Your task to perform on an android device: Who is the president of the United States? Image 0: 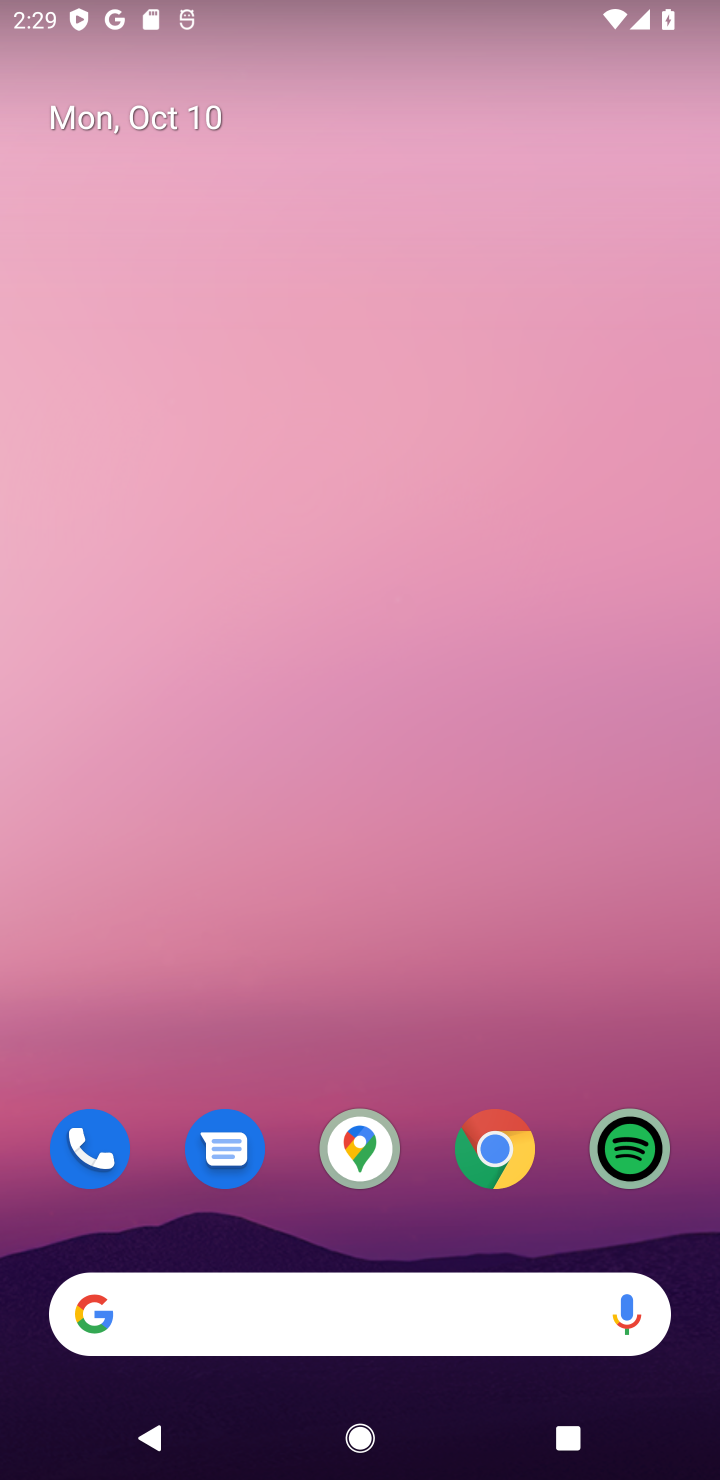
Step 0: drag from (398, 1237) to (371, 21)
Your task to perform on an android device: Who is the president of the United States? Image 1: 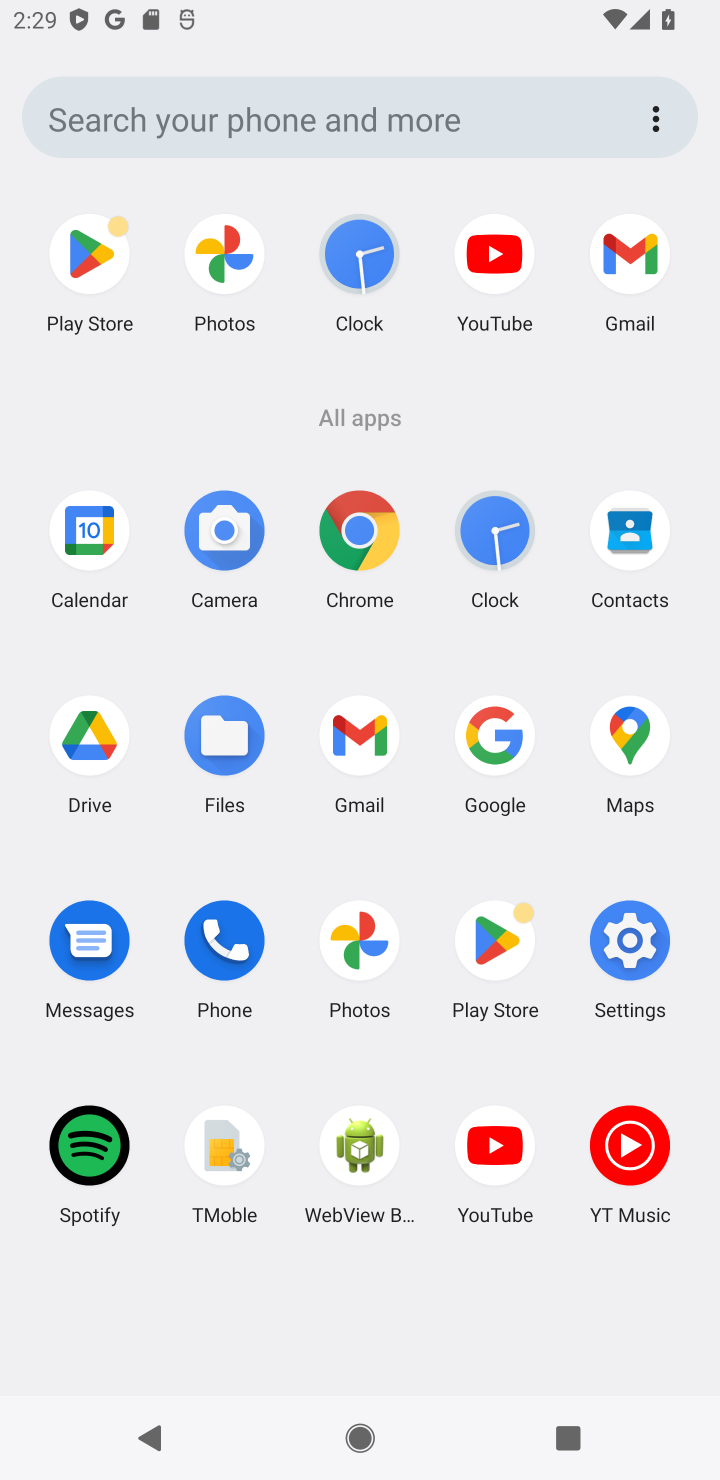
Step 1: press home button
Your task to perform on an android device: Who is the president of the United States? Image 2: 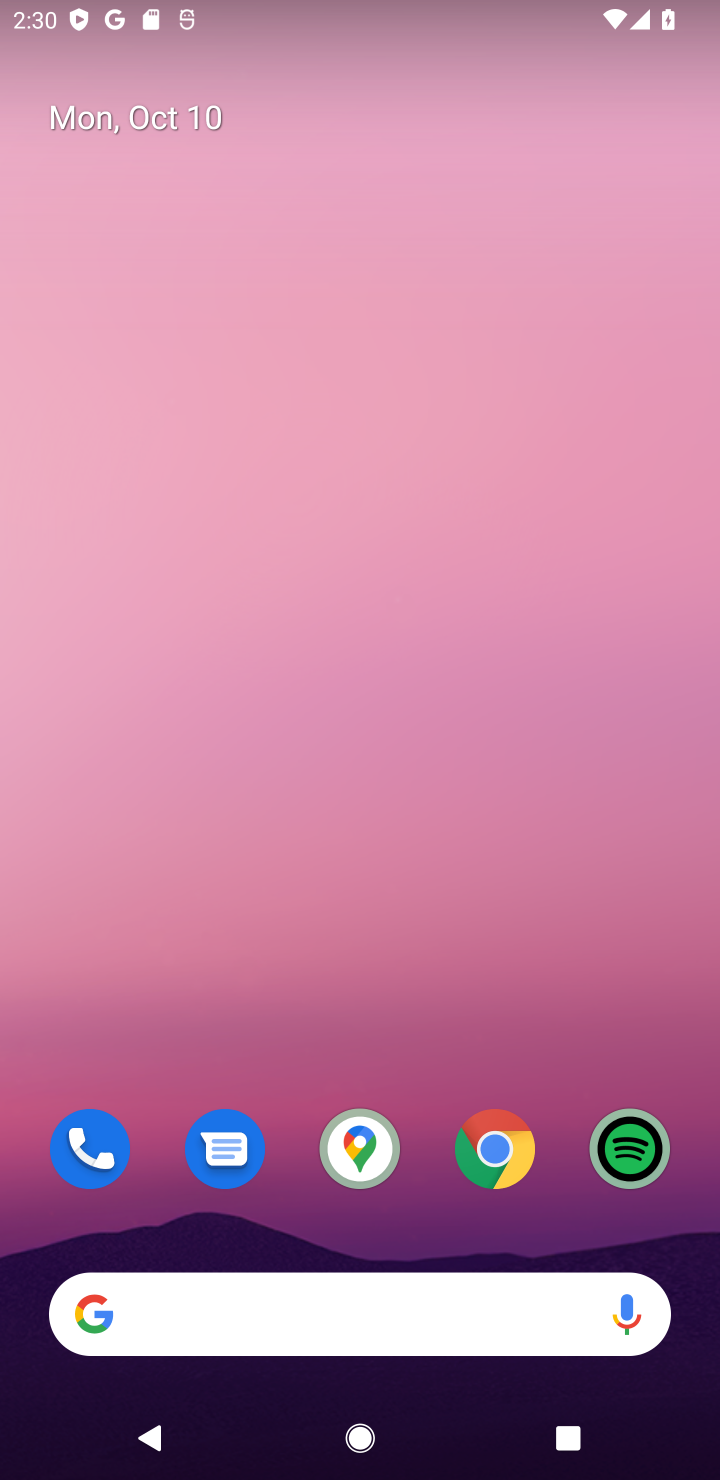
Step 2: click (360, 1294)
Your task to perform on an android device: Who is the president of the United States? Image 3: 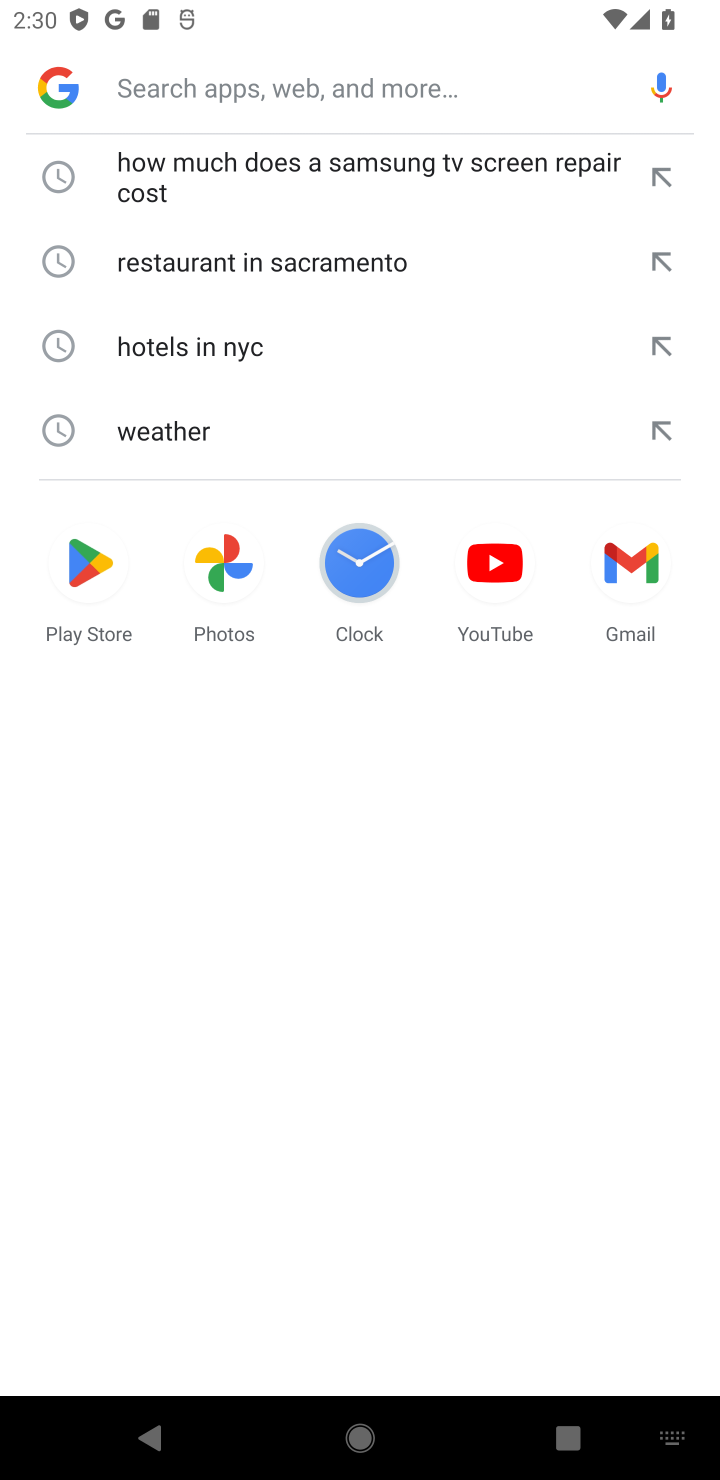
Step 3: type "Who is the president of the United States?"
Your task to perform on an android device: Who is the president of the United States? Image 4: 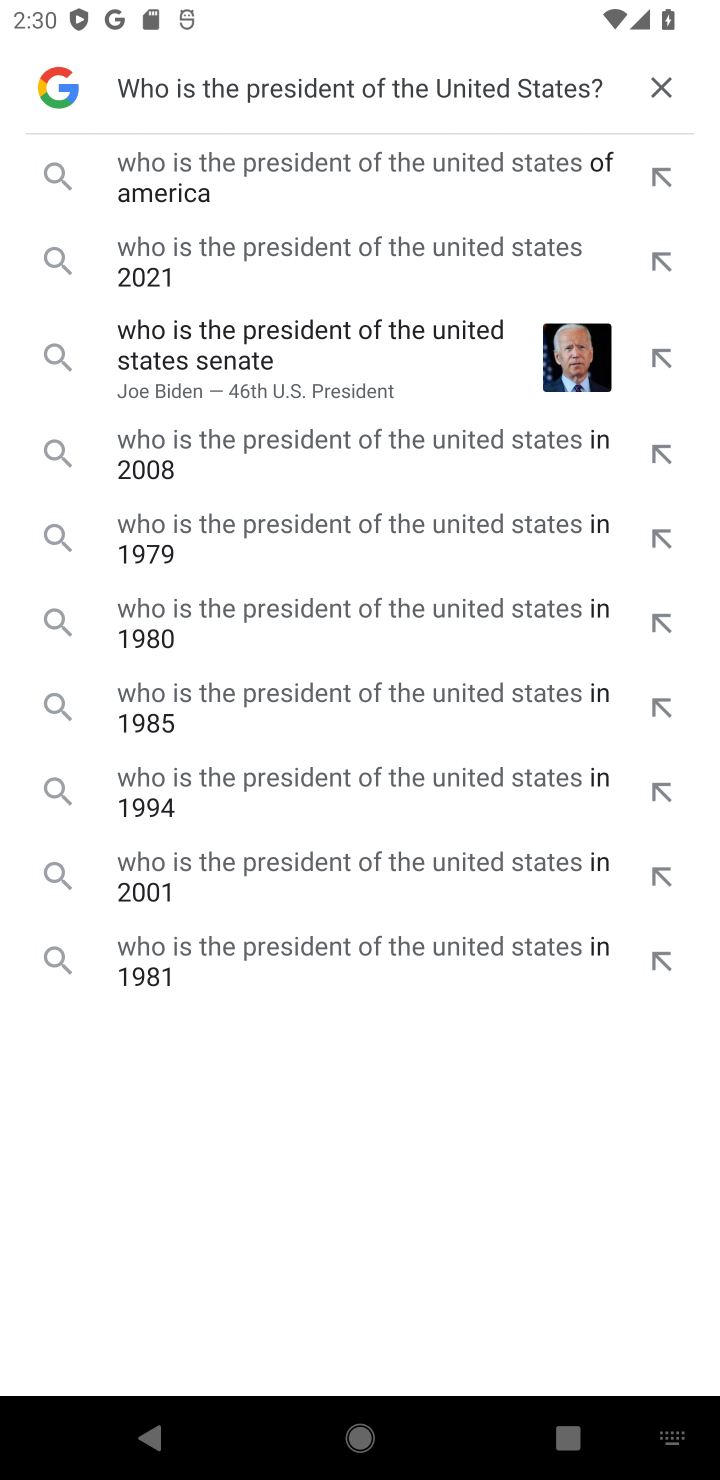
Step 4: click (381, 178)
Your task to perform on an android device: Who is the president of the United States? Image 5: 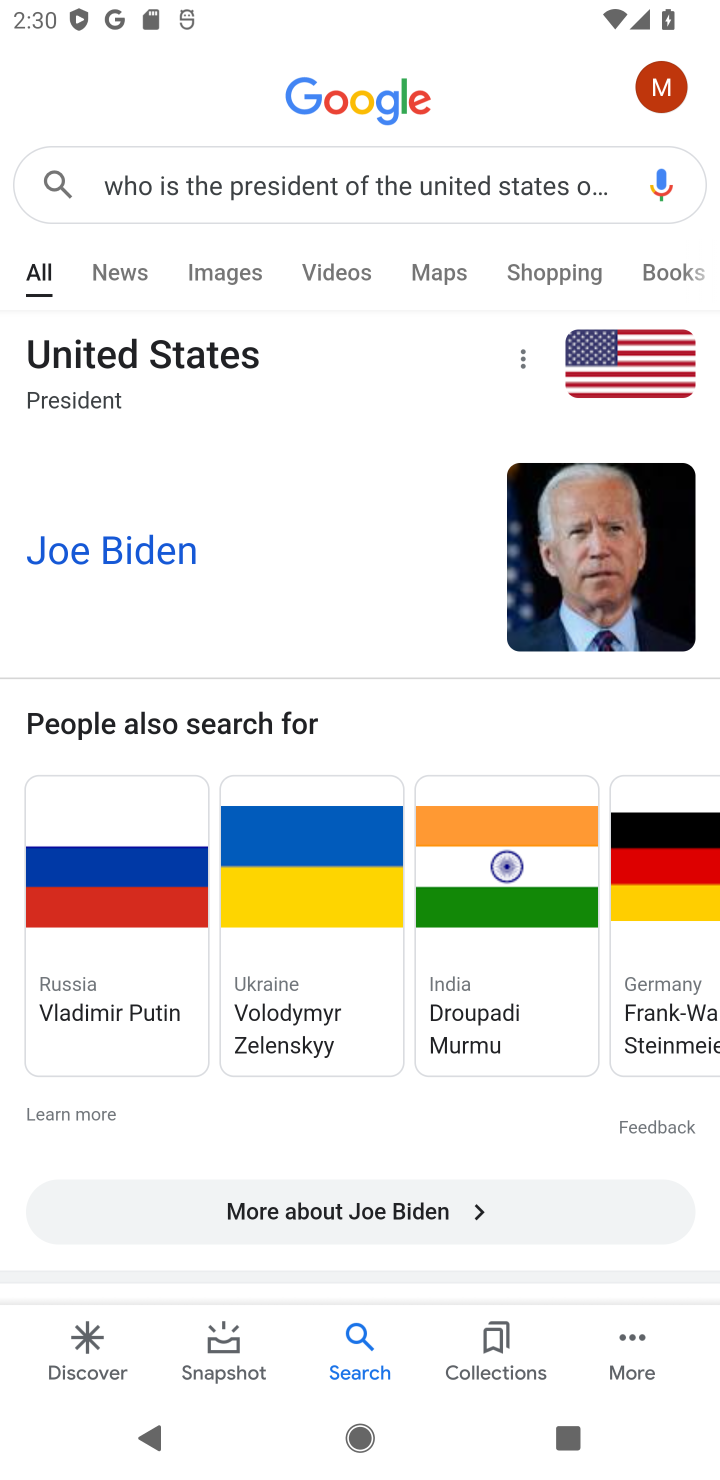
Step 5: task complete